Your task to perform on an android device: turn off priority inbox in the gmail app Image 0: 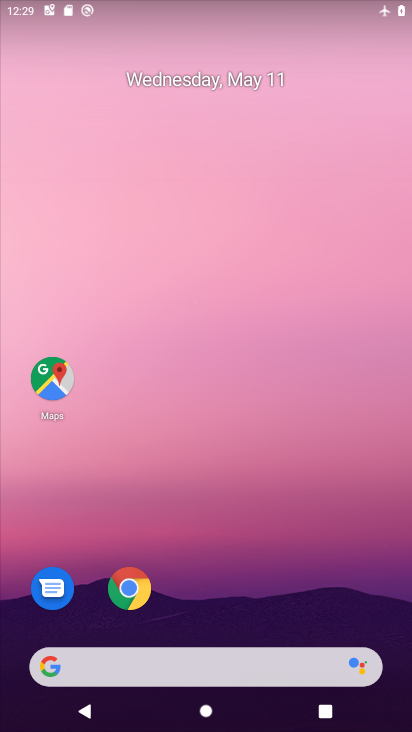
Step 0: drag from (198, 649) to (191, 291)
Your task to perform on an android device: turn off priority inbox in the gmail app Image 1: 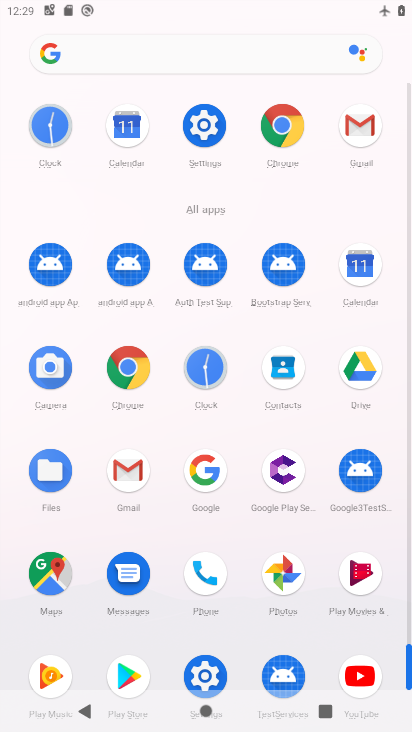
Step 1: click (121, 464)
Your task to perform on an android device: turn off priority inbox in the gmail app Image 2: 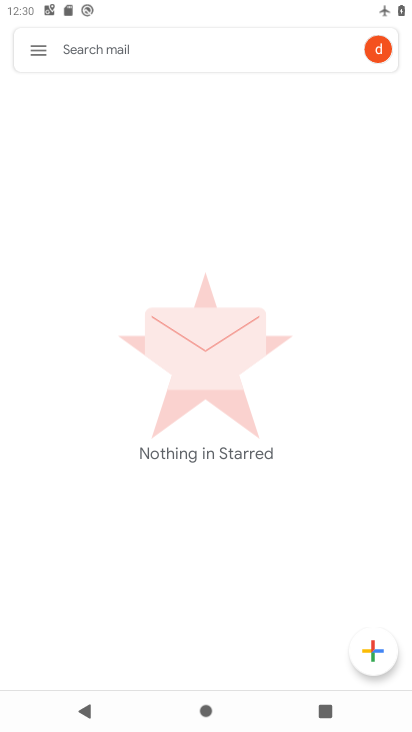
Step 2: click (43, 57)
Your task to perform on an android device: turn off priority inbox in the gmail app Image 3: 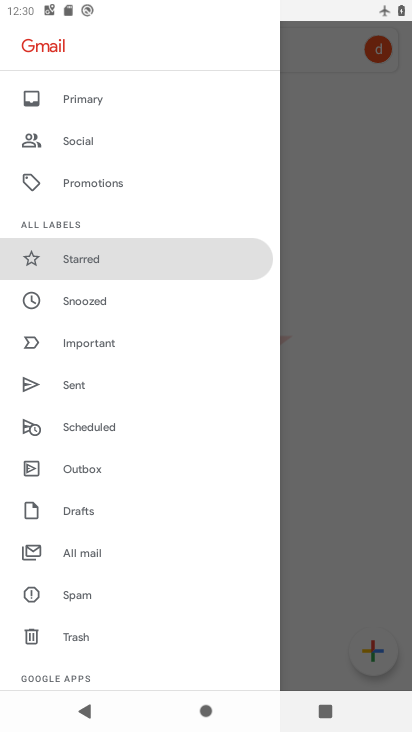
Step 3: drag from (86, 662) to (60, 347)
Your task to perform on an android device: turn off priority inbox in the gmail app Image 4: 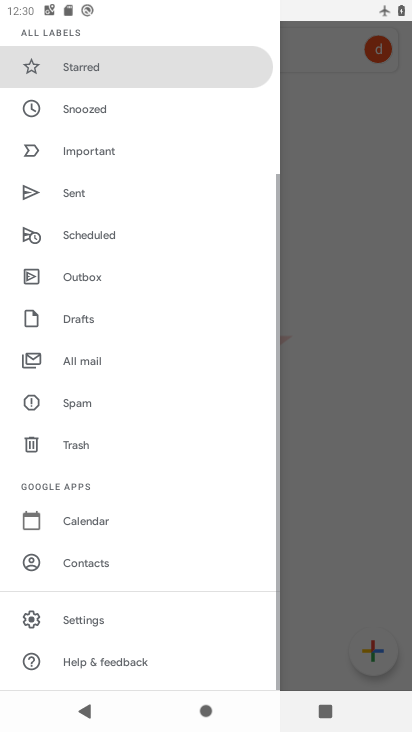
Step 4: click (83, 615)
Your task to perform on an android device: turn off priority inbox in the gmail app Image 5: 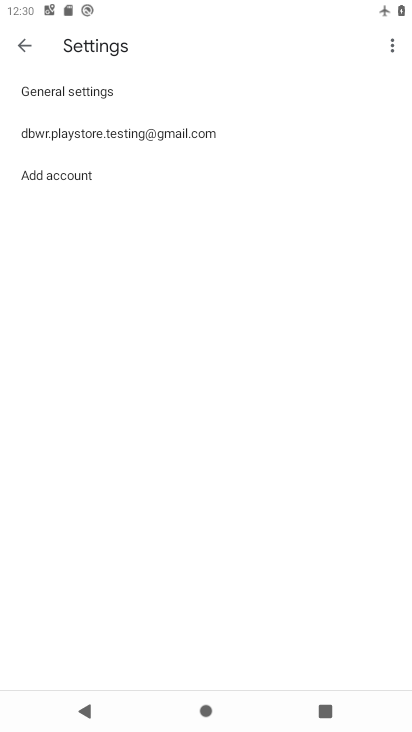
Step 5: click (110, 142)
Your task to perform on an android device: turn off priority inbox in the gmail app Image 6: 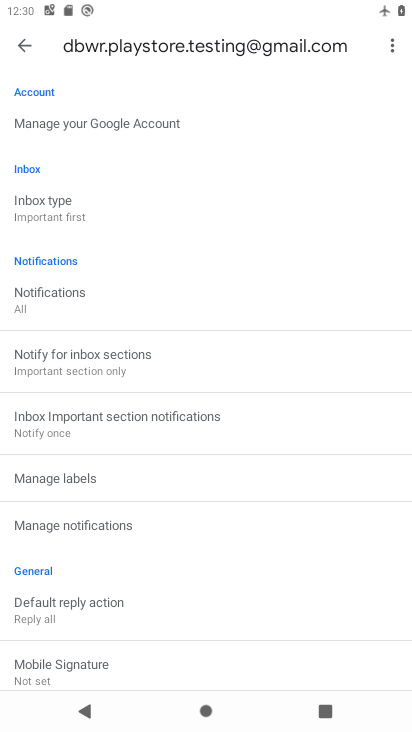
Step 6: task complete